Your task to perform on an android device: read, delete, or share a saved page in the chrome app Image 0: 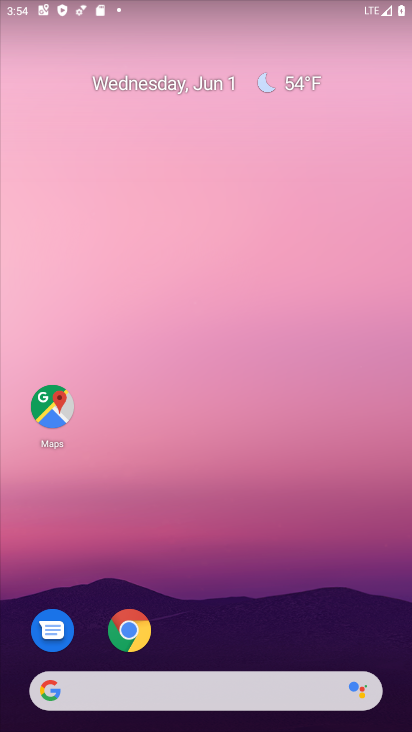
Step 0: drag from (254, 584) to (226, 53)
Your task to perform on an android device: read, delete, or share a saved page in the chrome app Image 1: 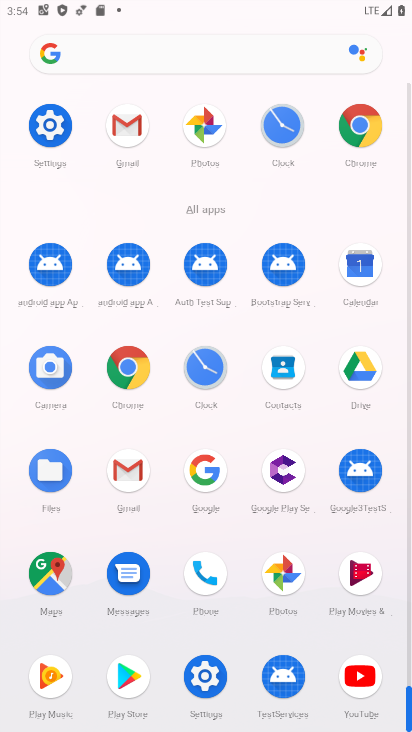
Step 1: drag from (17, 581) to (24, 212)
Your task to perform on an android device: read, delete, or share a saved page in the chrome app Image 2: 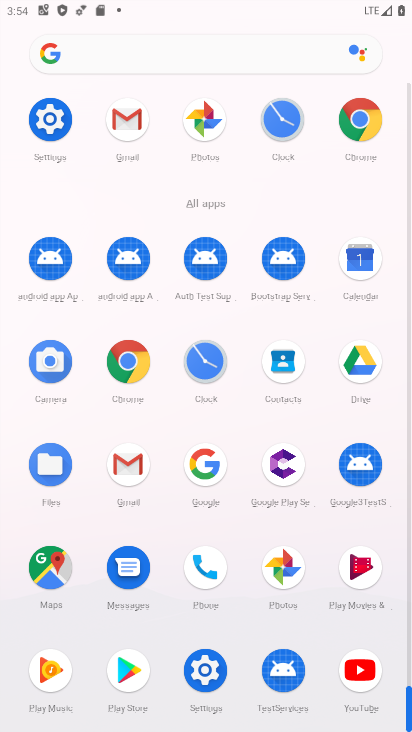
Step 2: click (135, 355)
Your task to perform on an android device: read, delete, or share a saved page in the chrome app Image 3: 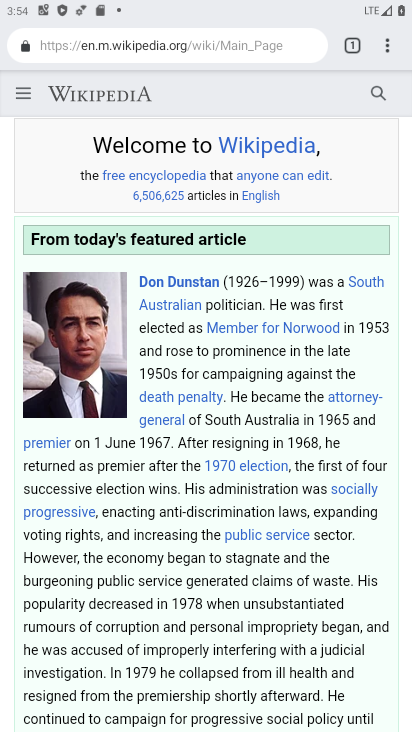
Step 3: task complete